Your task to perform on an android device: snooze an email in the gmail app Image 0: 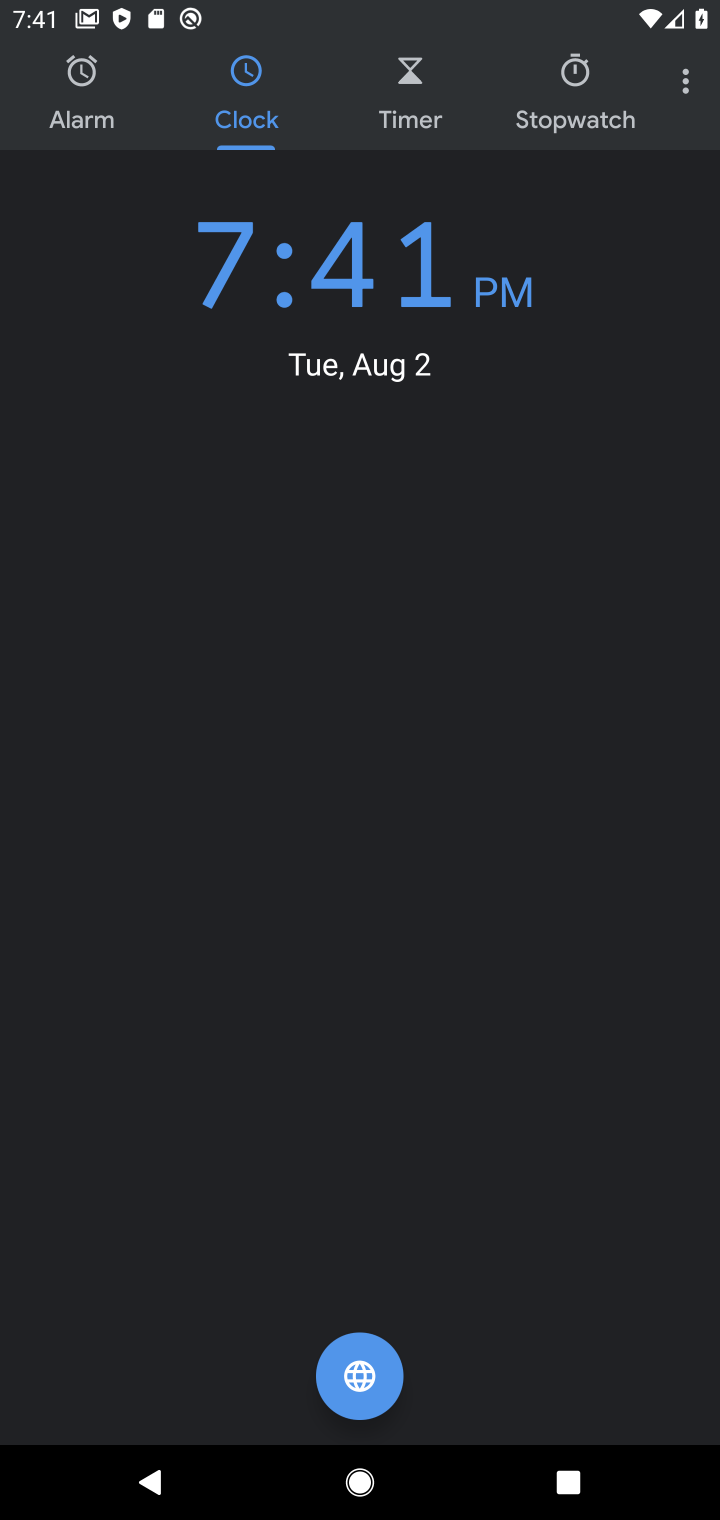
Step 0: press home button
Your task to perform on an android device: snooze an email in the gmail app Image 1: 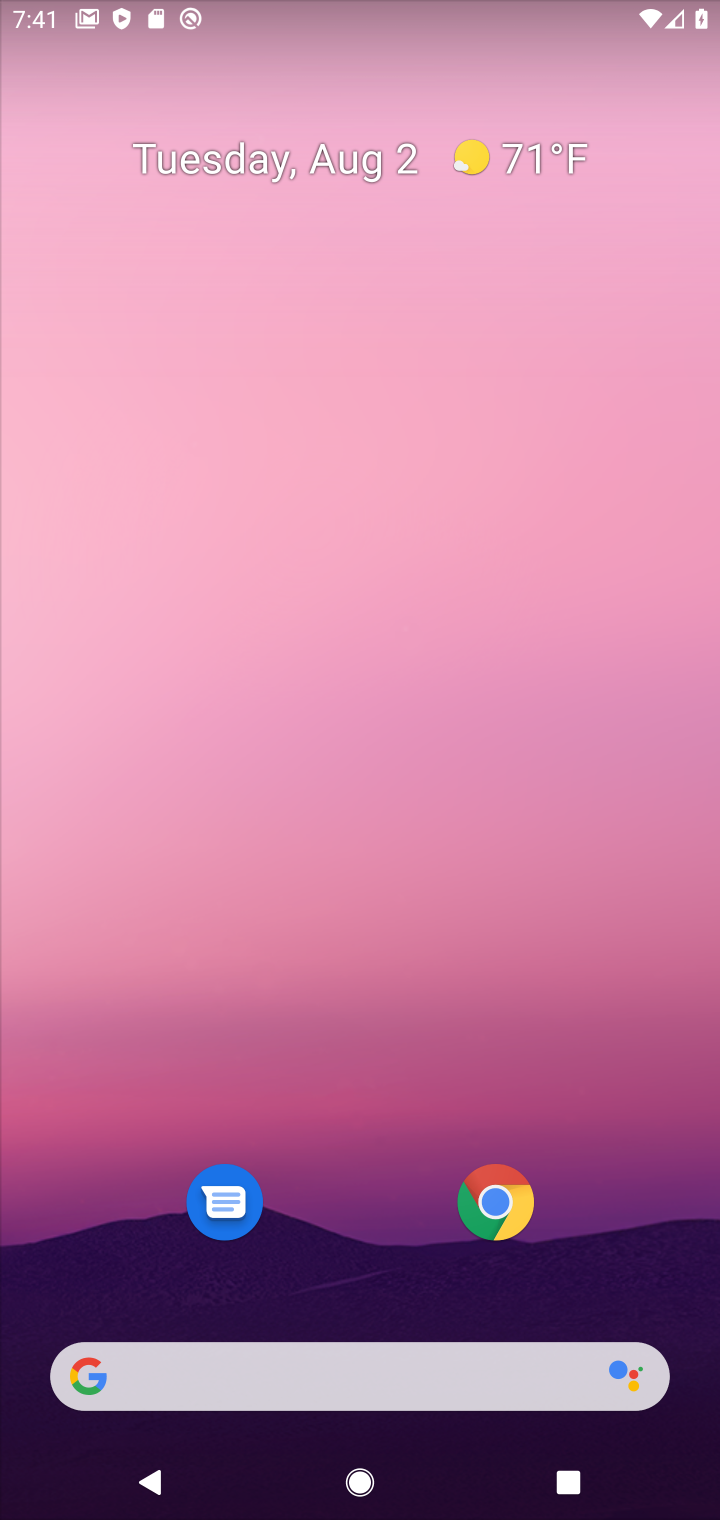
Step 1: drag from (358, 1245) to (272, 117)
Your task to perform on an android device: snooze an email in the gmail app Image 2: 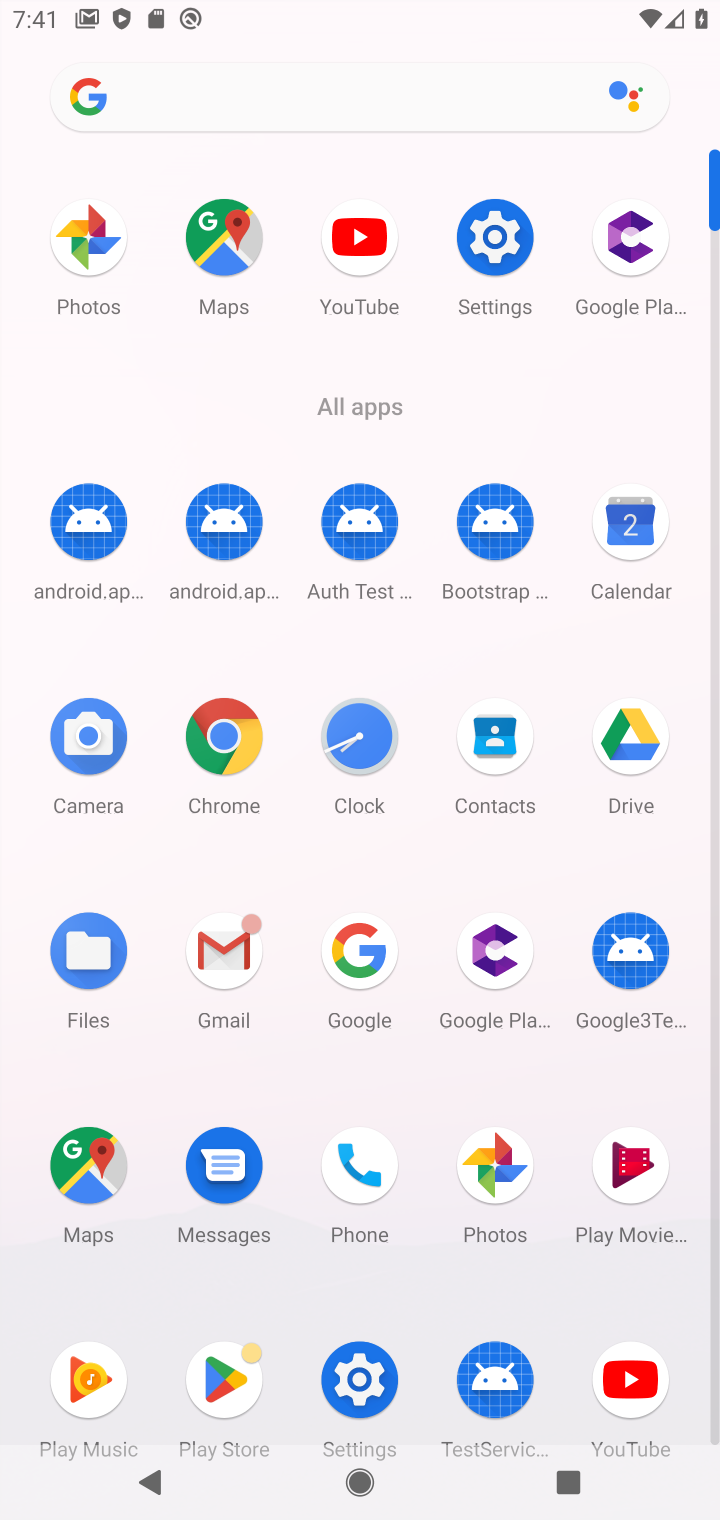
Step 2: click (223, 961)
Your task to perform on an android device: snooze an email in the gmail app Image 3: 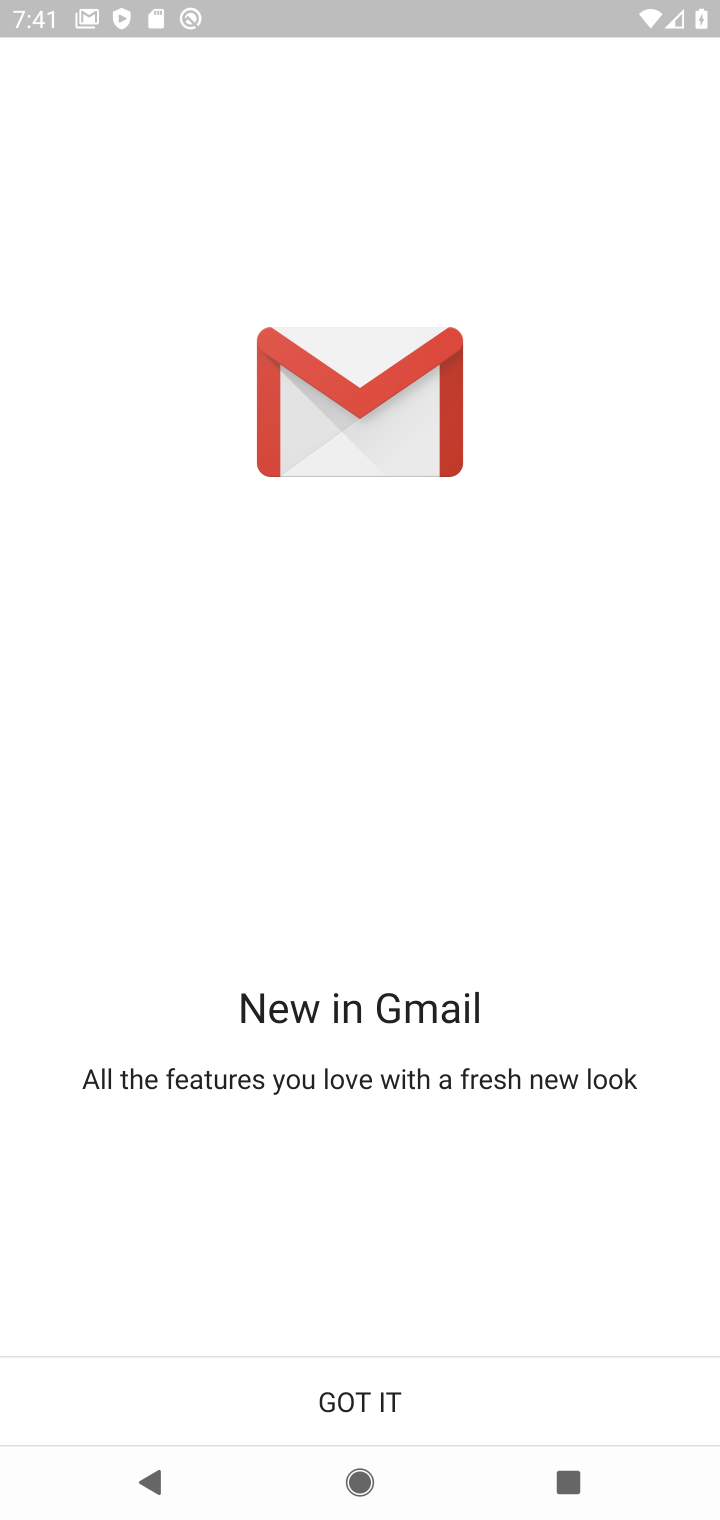
Step 3: click (362, 1407)
Your task to perform on an android device: snooze an email in the gmail app Image 4: 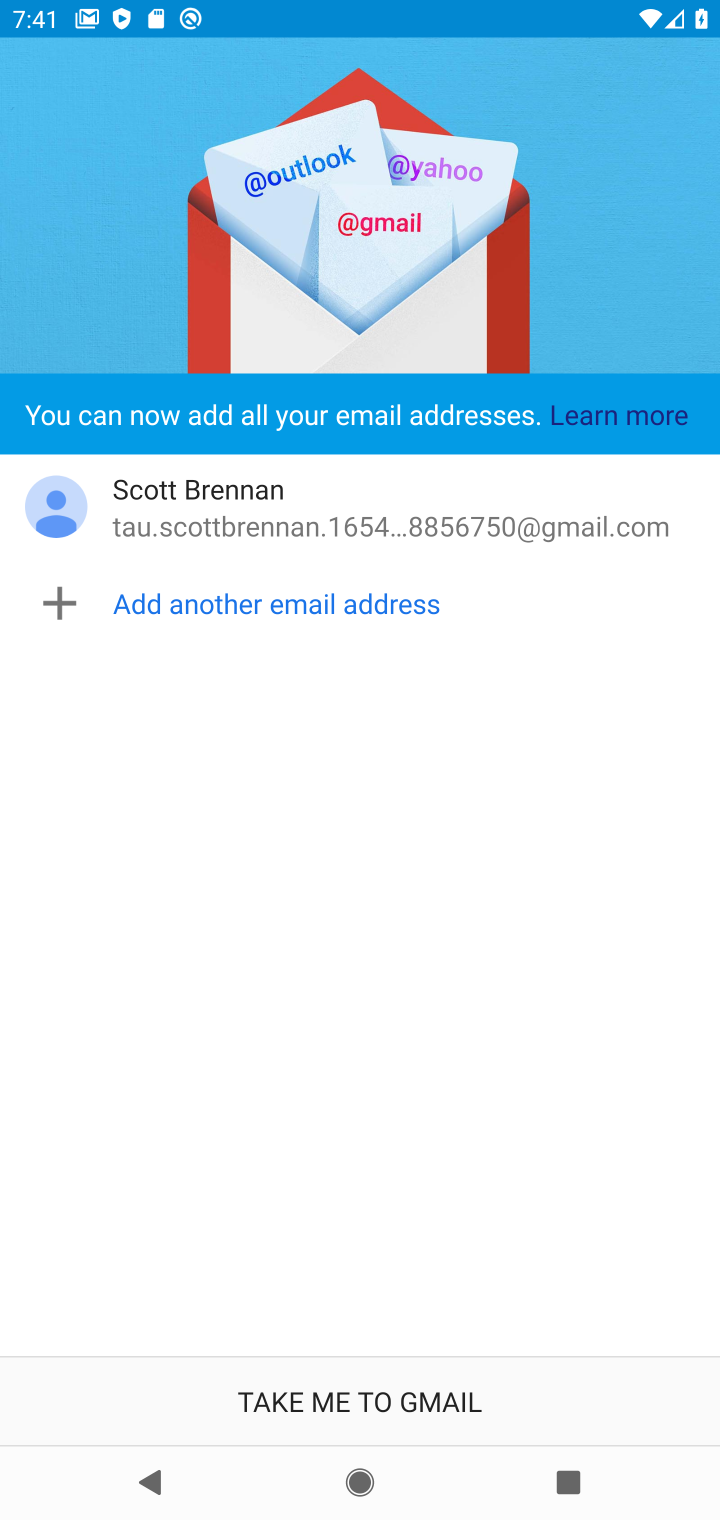
Step 4: click (362, 1407)
Your task to perform on an android device: snooze an email in the gmail app Image 5: 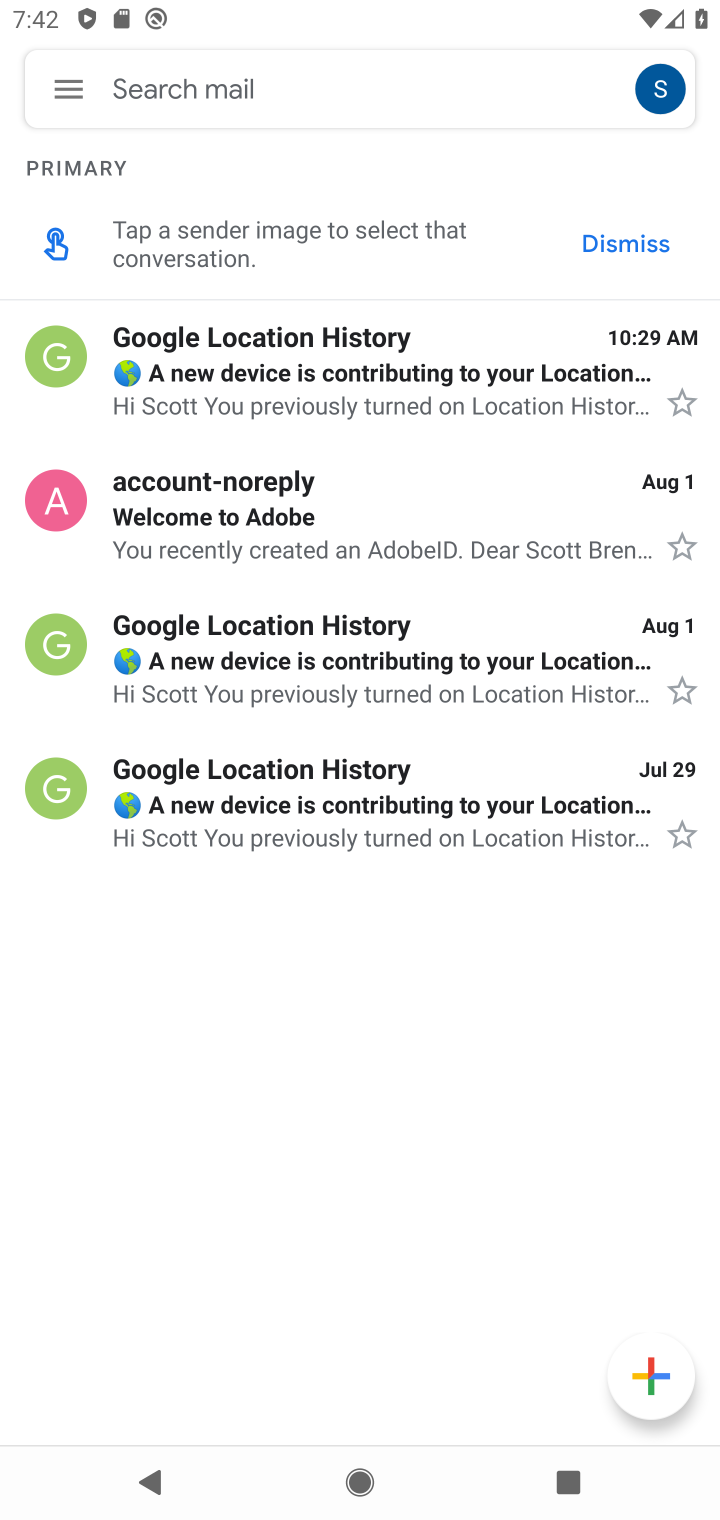
Step 5: click (253, 375)
Your task to perform on an android device: snooze an email in the gmail app Image 6: 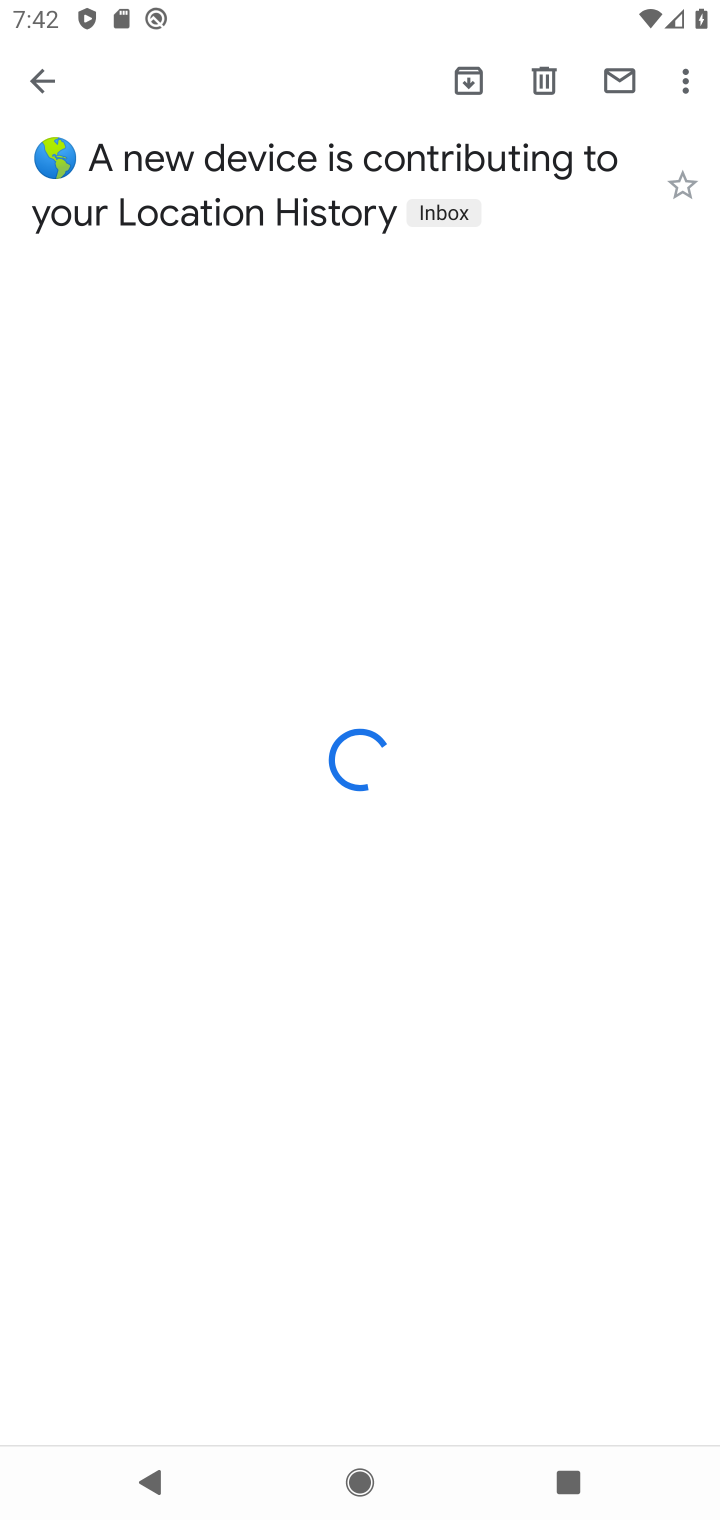
Step 6: click (690, 75)
Your task to perform on an android device: snooze an email in the gmail app Image 7: 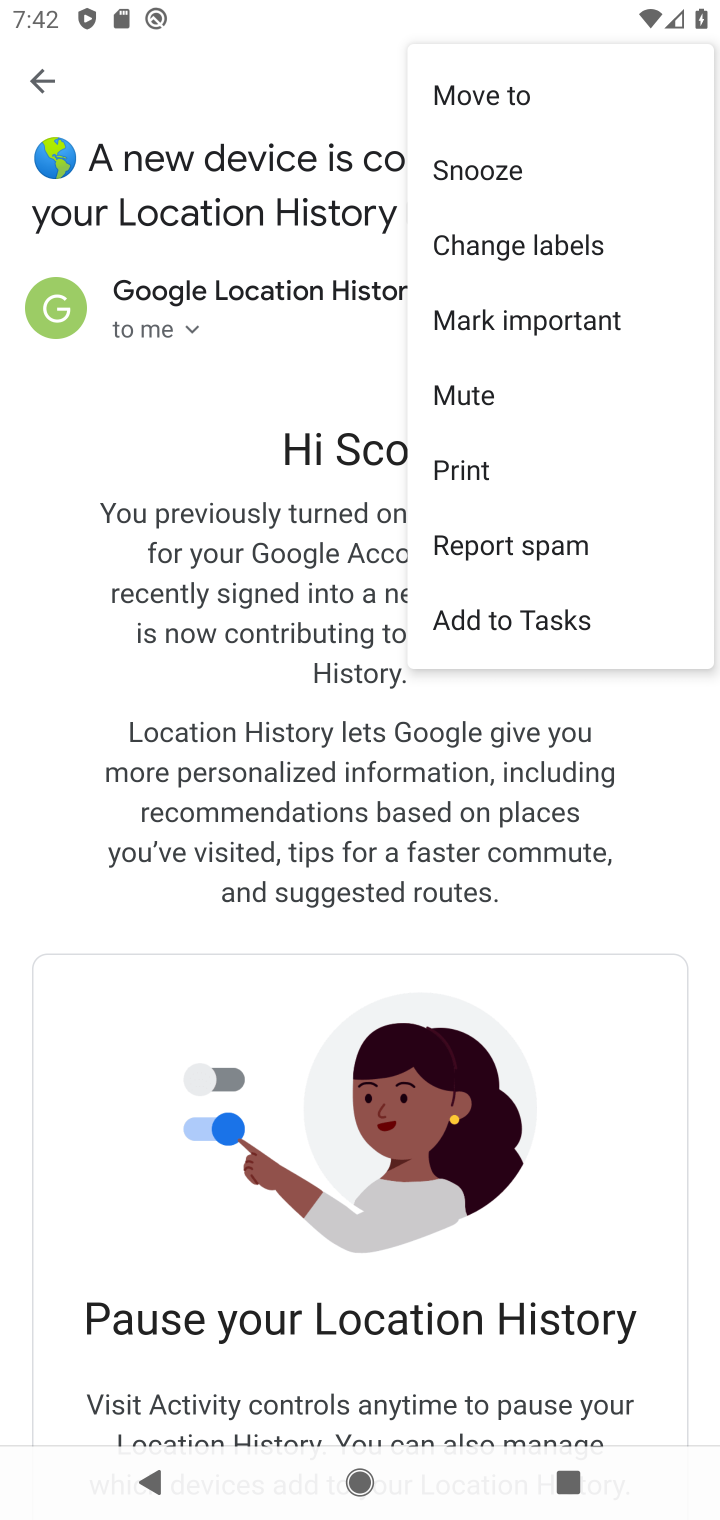
Step 7: click (493, 174)
Your task to perform on an android device: snooze an email in the gmail app Image 8: 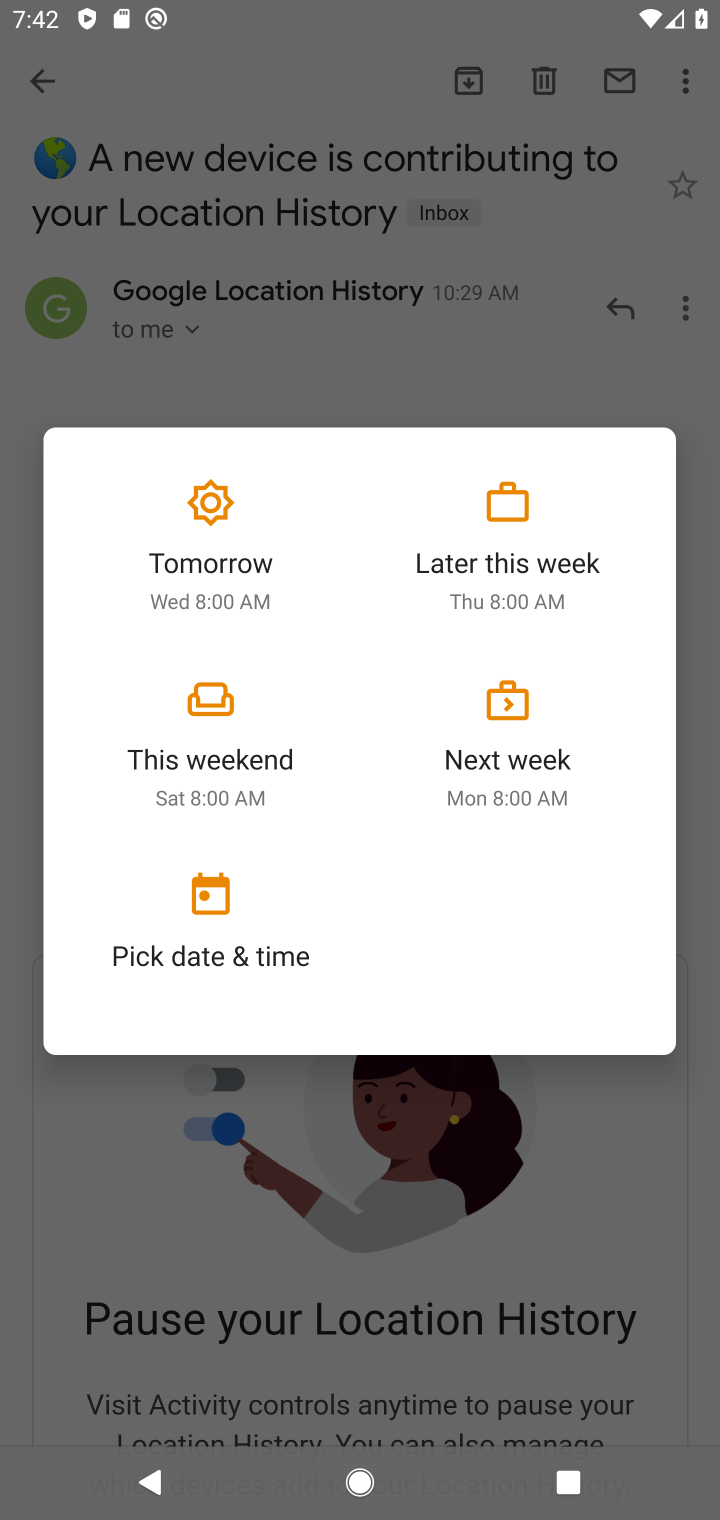
Step 8: click (181, 570)
Your task to perform on an android device: snooze an email in the gmail app Image 9: 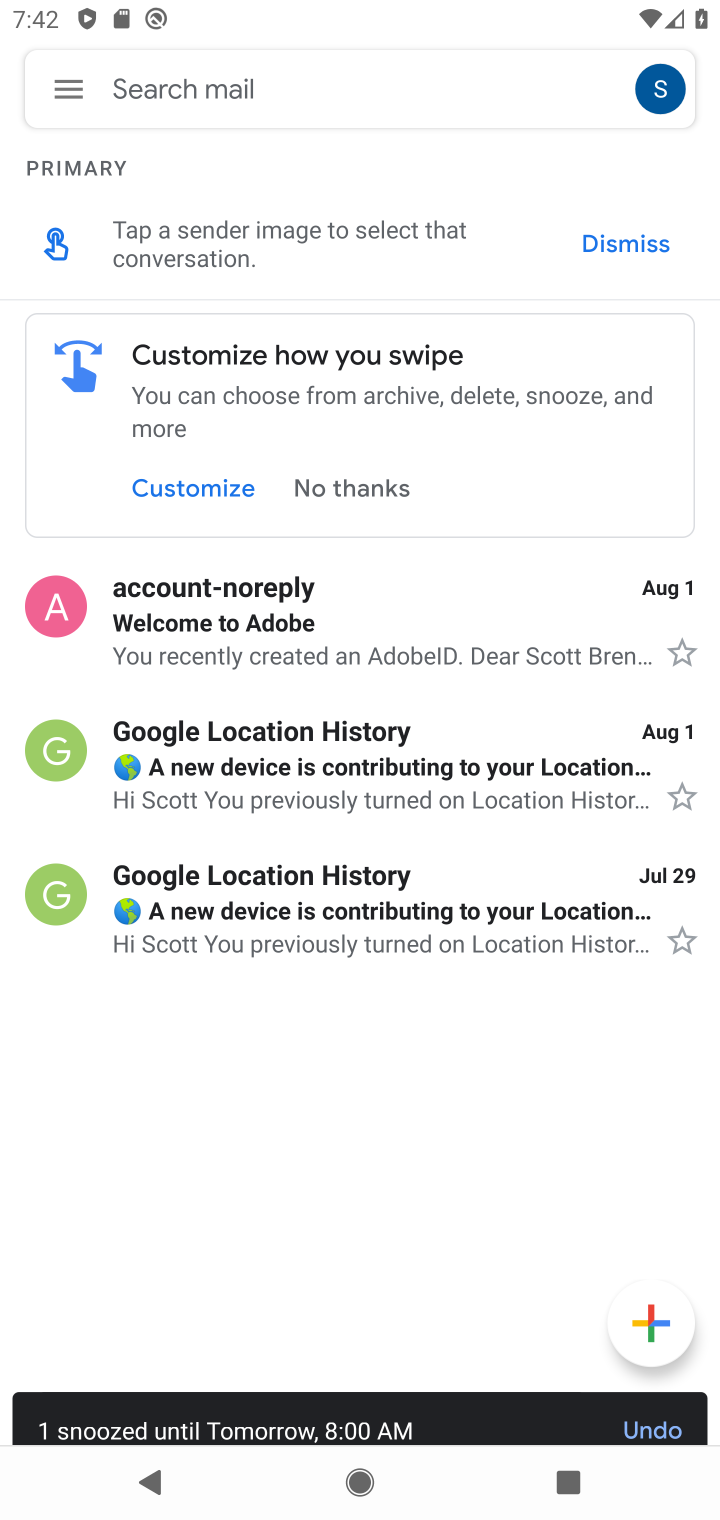
Step 9: task complete